Your task to perform on an android device: find snoozed emails in the gmail app Image 0: 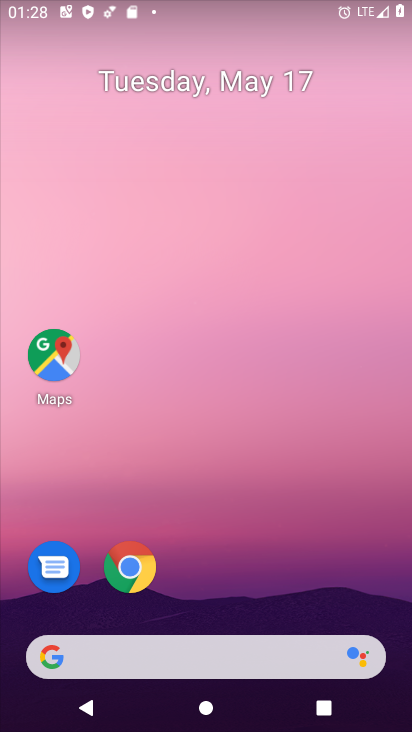
Step 0: drag from (253, 536) to (239, 2)
Your task to perform on an android device: find snoozed emails in the gmail app Image 1: 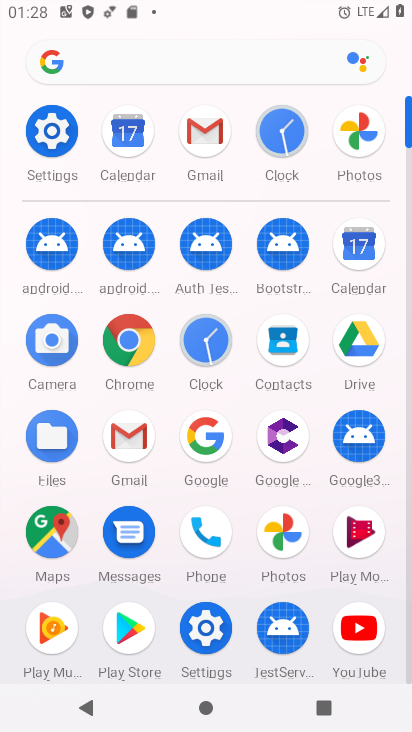
Step 1: click (123, 440)
Your task to perform on an android device: find snoozed emails in the gmail app Image 2: 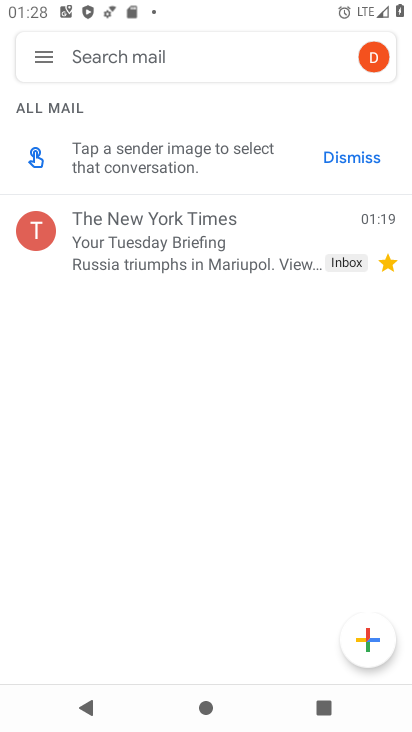
Step 2: click (41, 55)
Your task to perform on an android device: find snoozed emails in the gmail app Image 3: 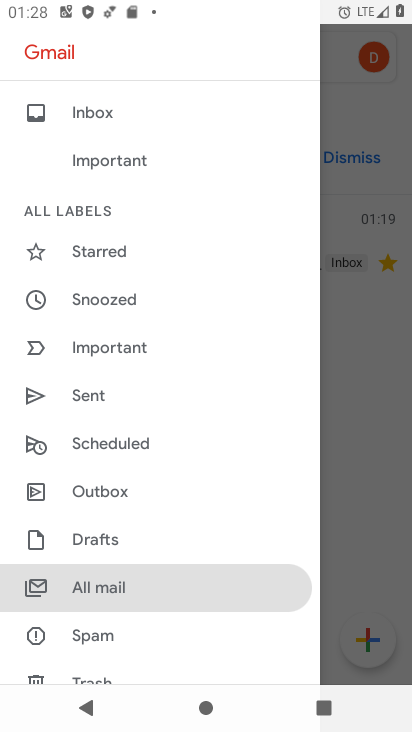
Step 3: drag from (159, 534) to (148, 226)
Your task to perform on an android device: find snoozed emails in the gmail app Image 4: 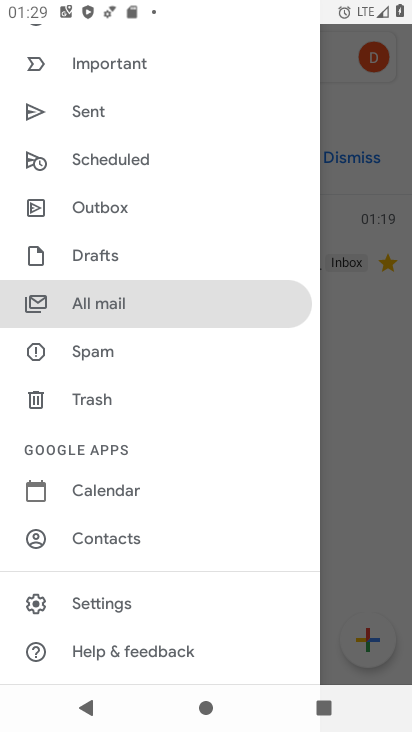
Step 4: drag from (158, 136) to (177, 299)
Your task to perform on an android device: find snoozed emails in the gmail app Image 5: 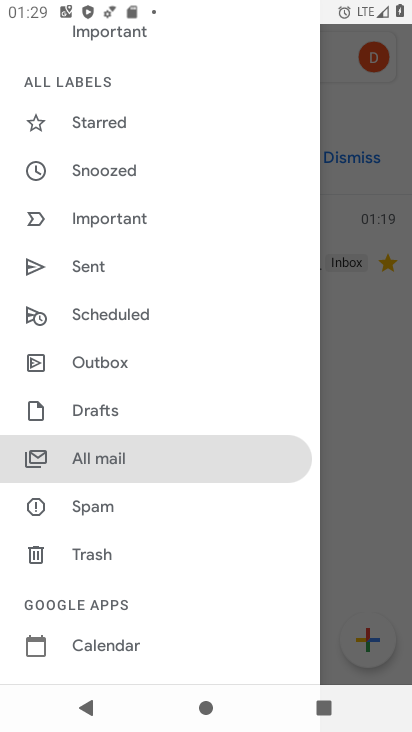
Step 5: click (103, 166)
Your task to perform on an android device: find snoozed emails in the gmail app Image 6: 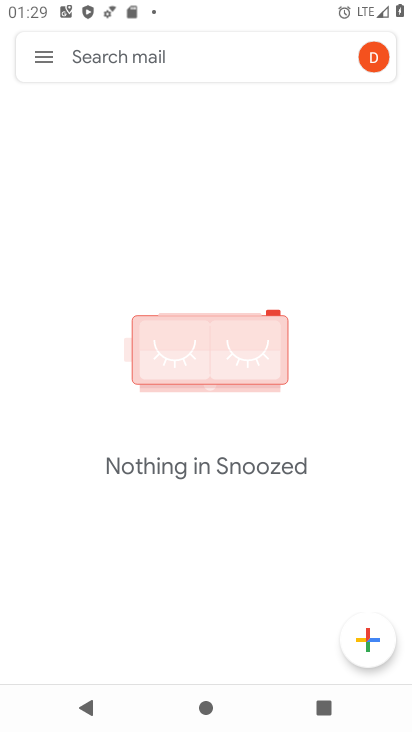
Step 6: task complete